Your task to perform on an android device: What's the weather? Image 0: 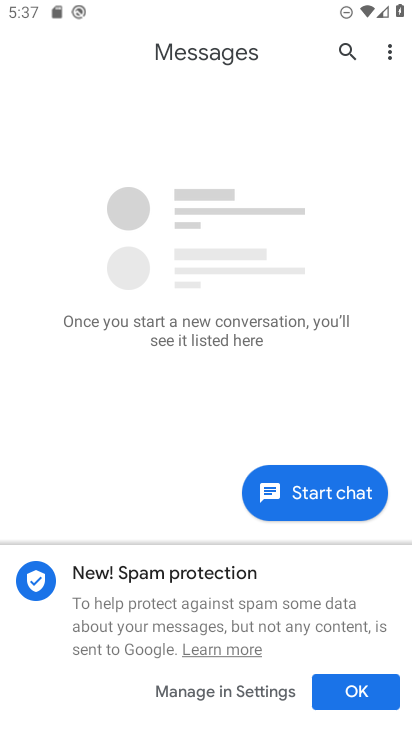
Step 0: press home button
Your task to perform on an android device: What's the weather? Image 1: 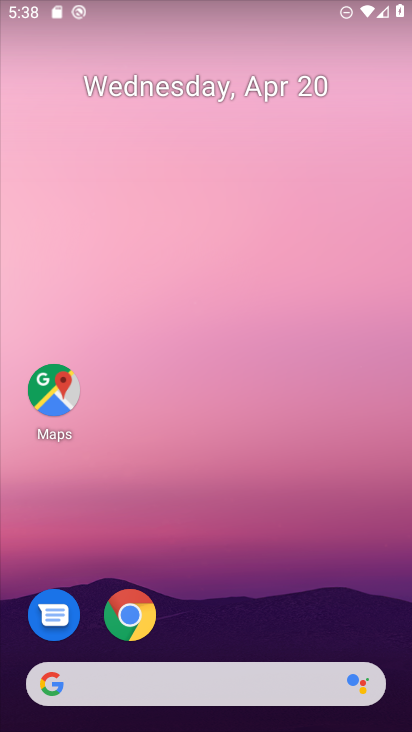
Step 1: click (226, 666)
Your task to perform on an android device: What's the weather? Image 2: 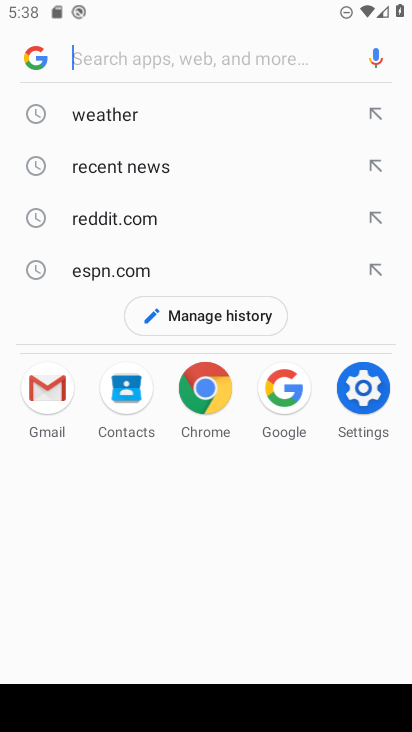
Step 2: click (122, 118)
Your task to perform on an android device: What's the weather? Image 3: 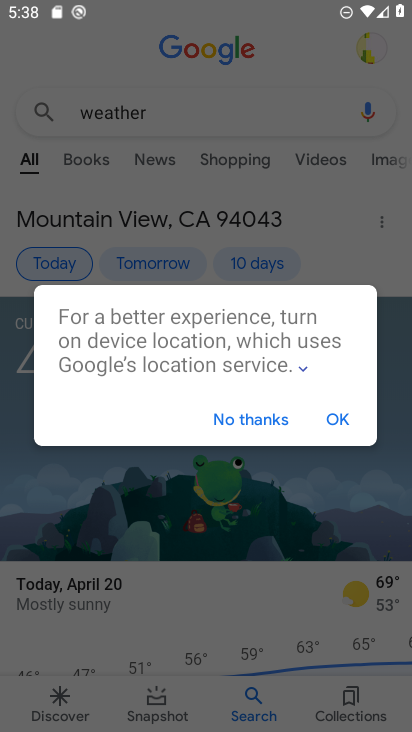
Step 3: click (330, 412)
Your task to perform on an android device: What's the weather? Image 4: 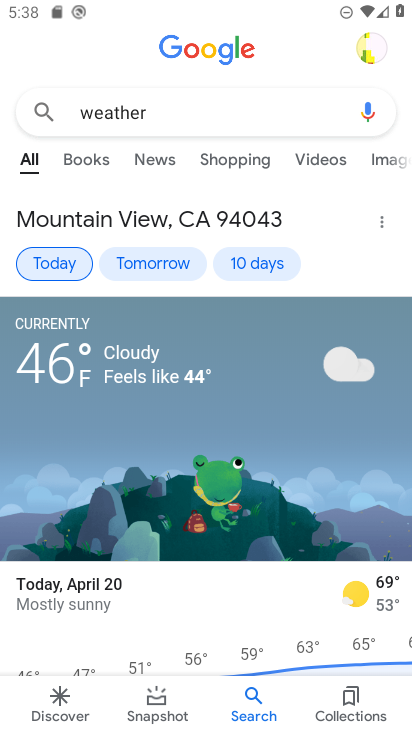
Step 4: task complete